Your task to perform on an android device: Add razer naga to the cart on newegg Image 0: 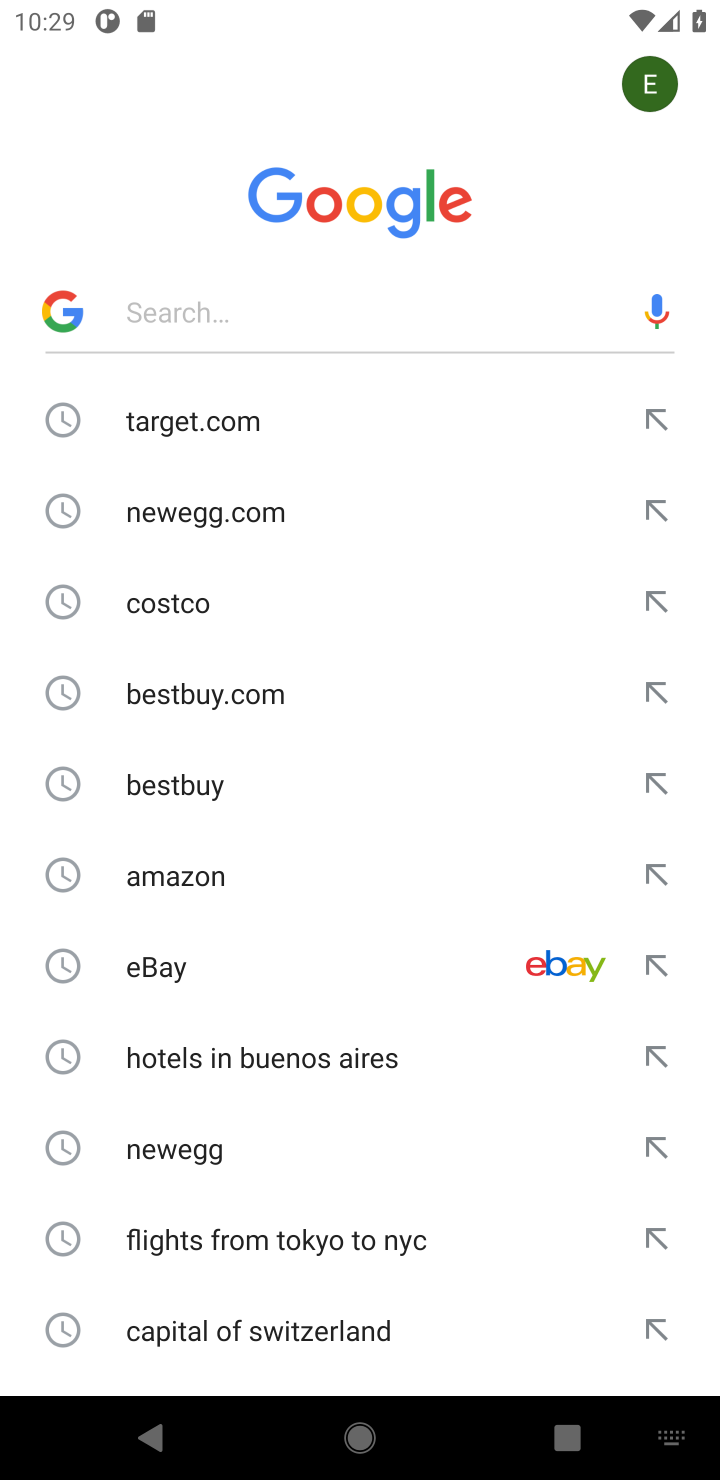
Step 0: press home button
Your task to perform on an android device: Add razer naga to the cart on newegg Image 1: 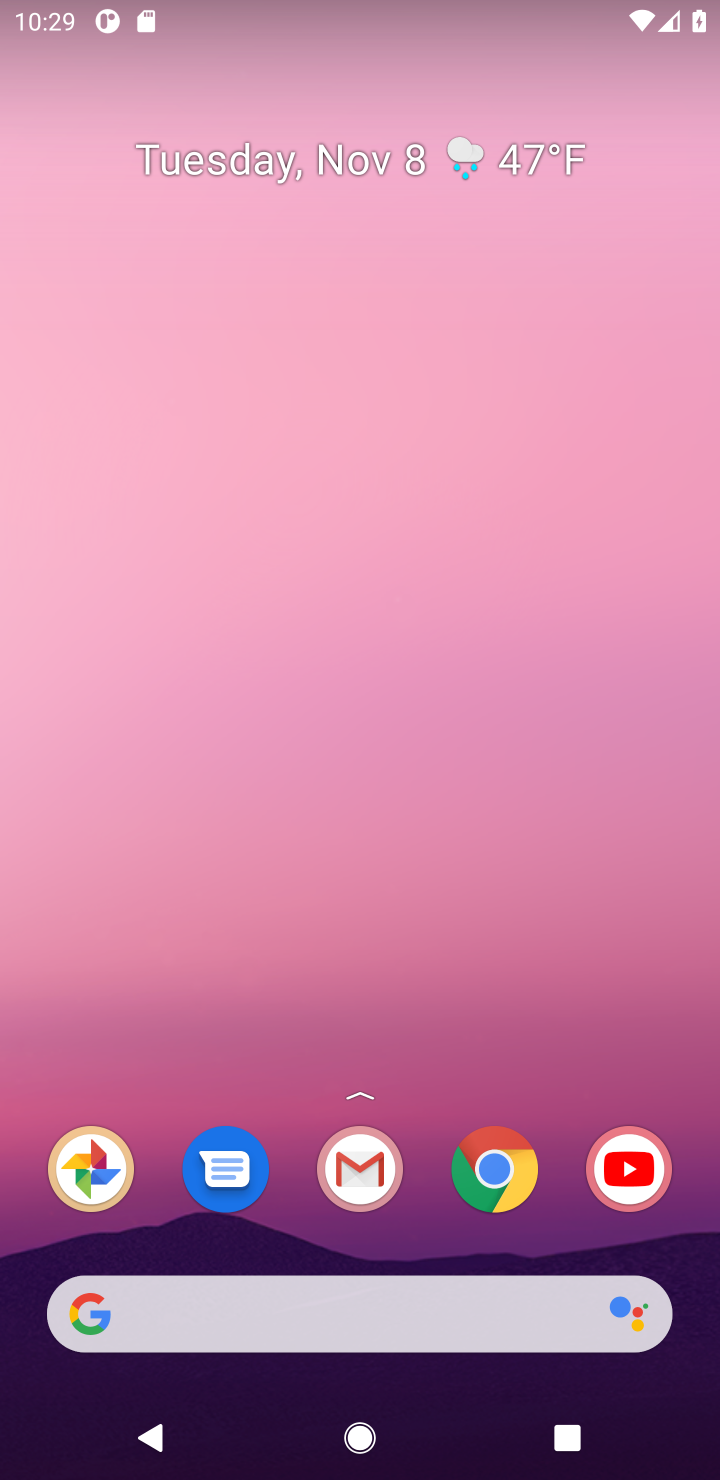
Step 1: click (513, 1178)
Your task to perform on an android device: Add razer naga to the cart on newegg Image 2: 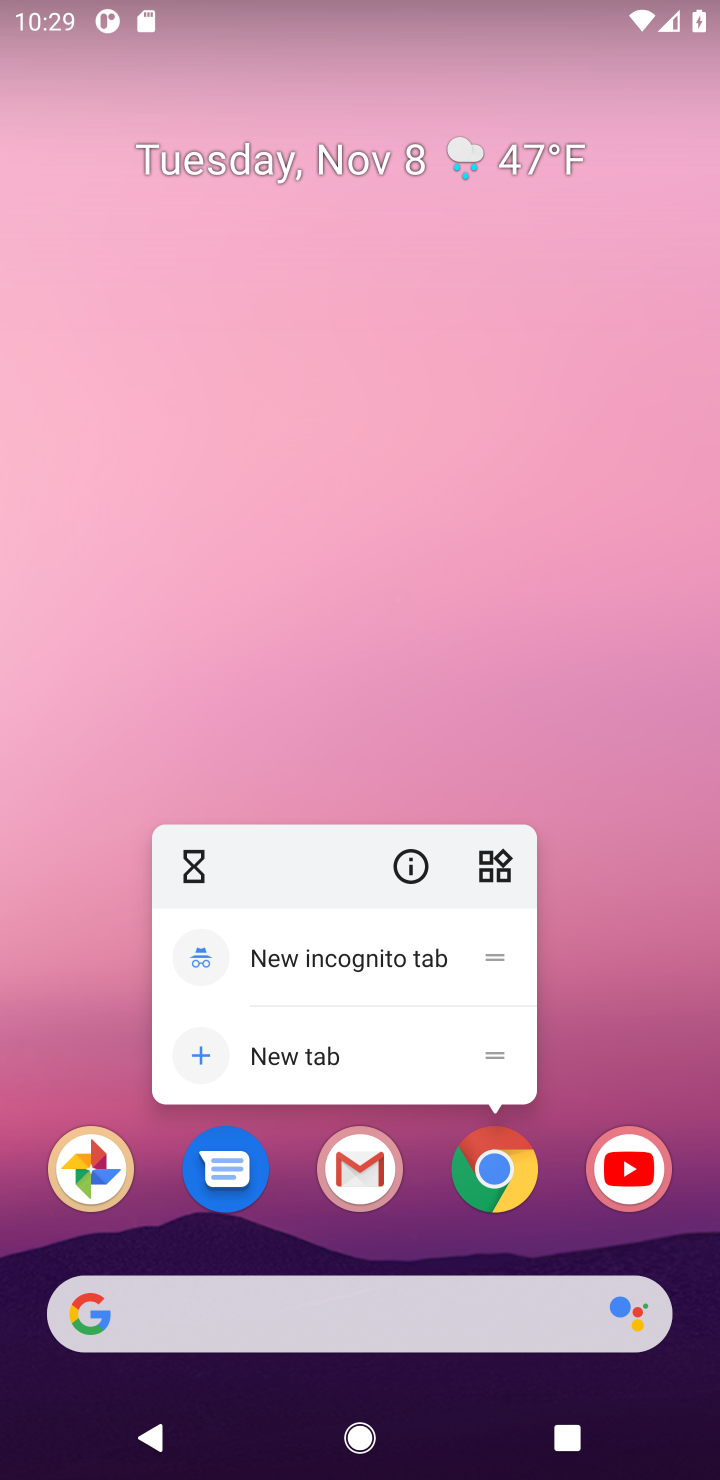
Step 2: click (513, 1178)
Your task to perform on an android device: Add razer naga to the cart on newegg Image 3: 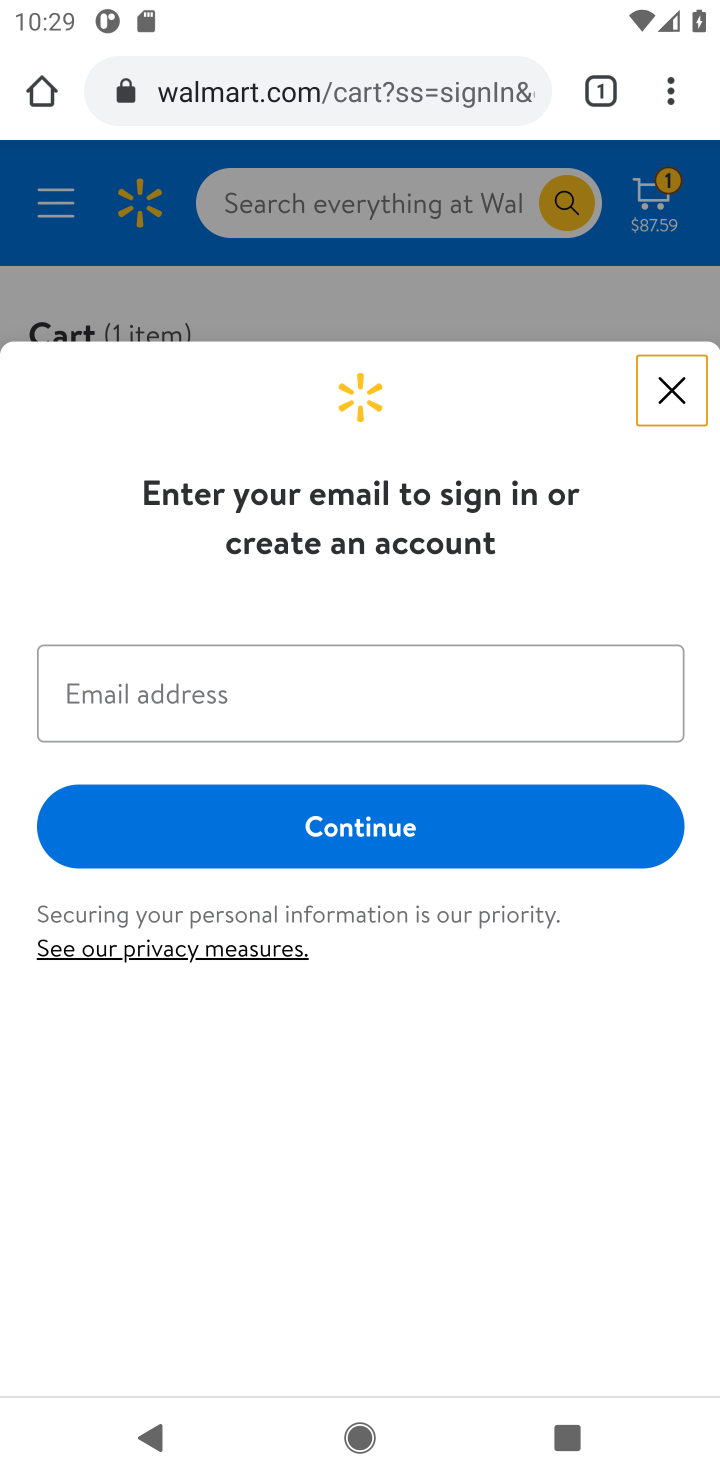
Step 3: click (408, 88)
Your task to perform on an android device: Add razer naga to the cart on newegg Image 4: 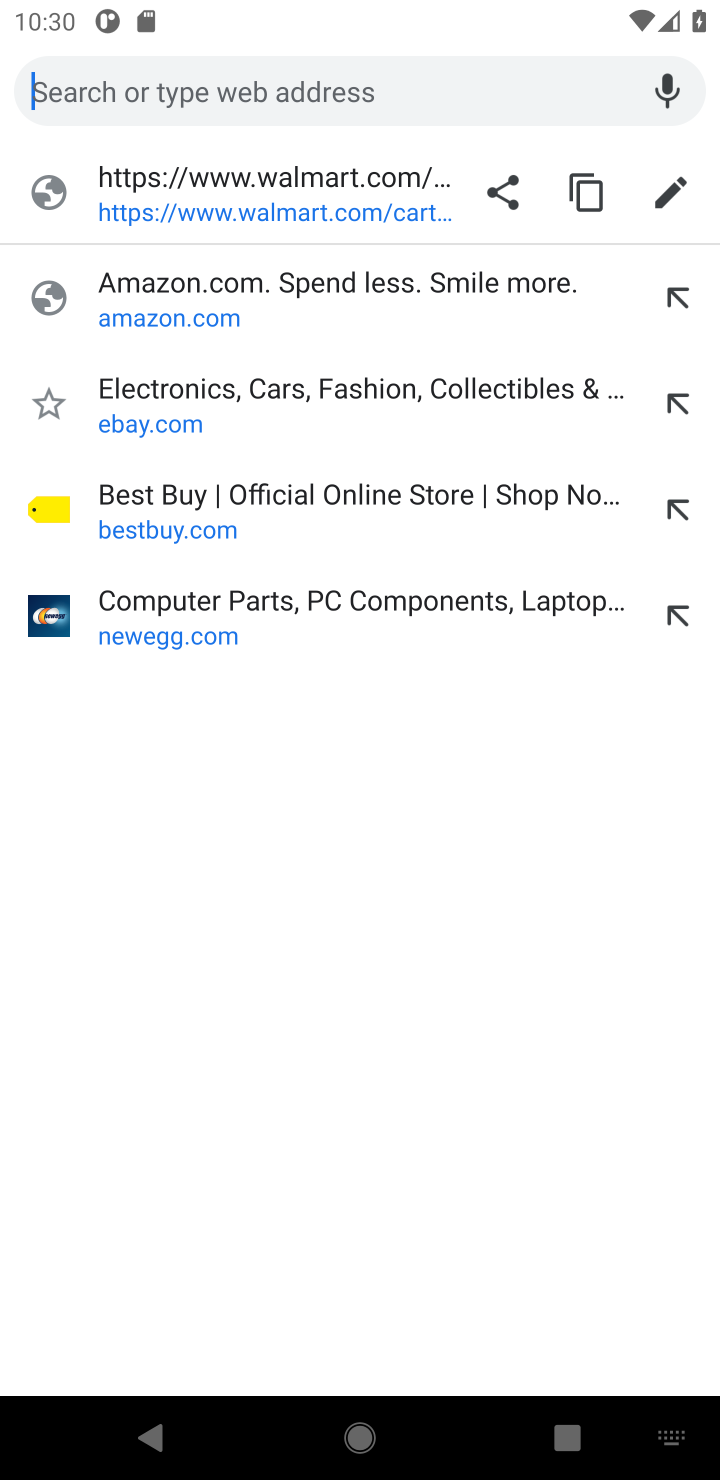
Step 4: type "newegg"
Your task to perform on an android device: Add razer naga to the cart on newegg Image 5: 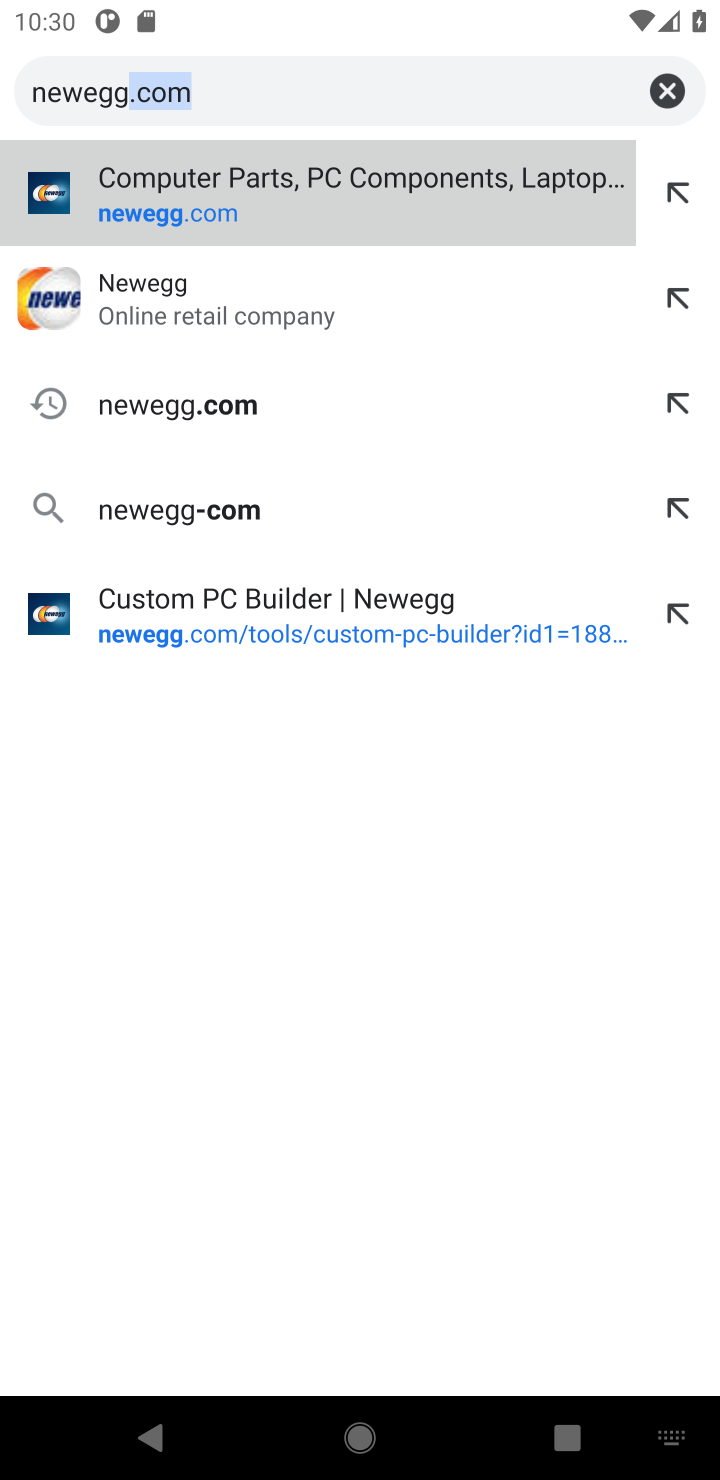
Step 5: click (326, 79)
Your task to perform on an android device: Add razer naga to the cart on newegg Image 6: 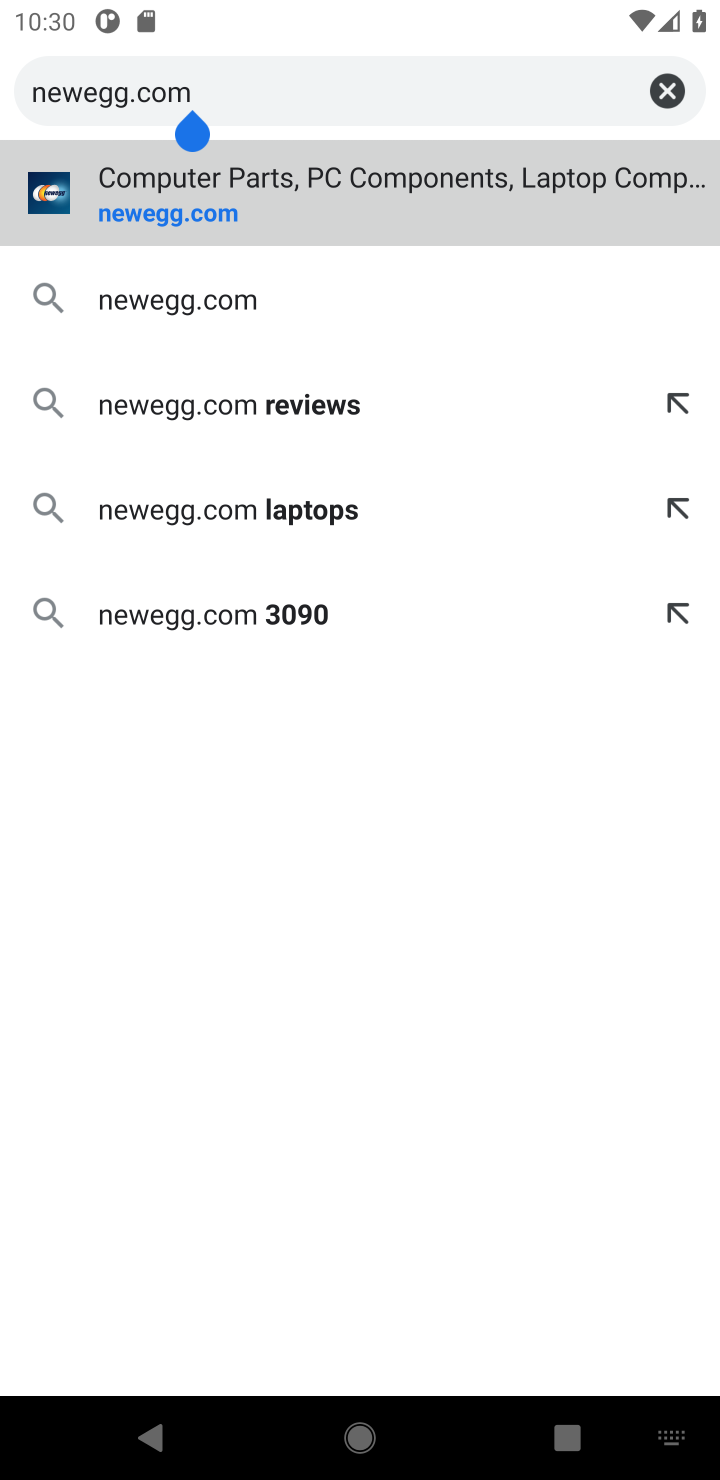
Step 6: click (164, 292)
Your task to perform on an android device: Add razer naga to the cart on newegg Image 7: 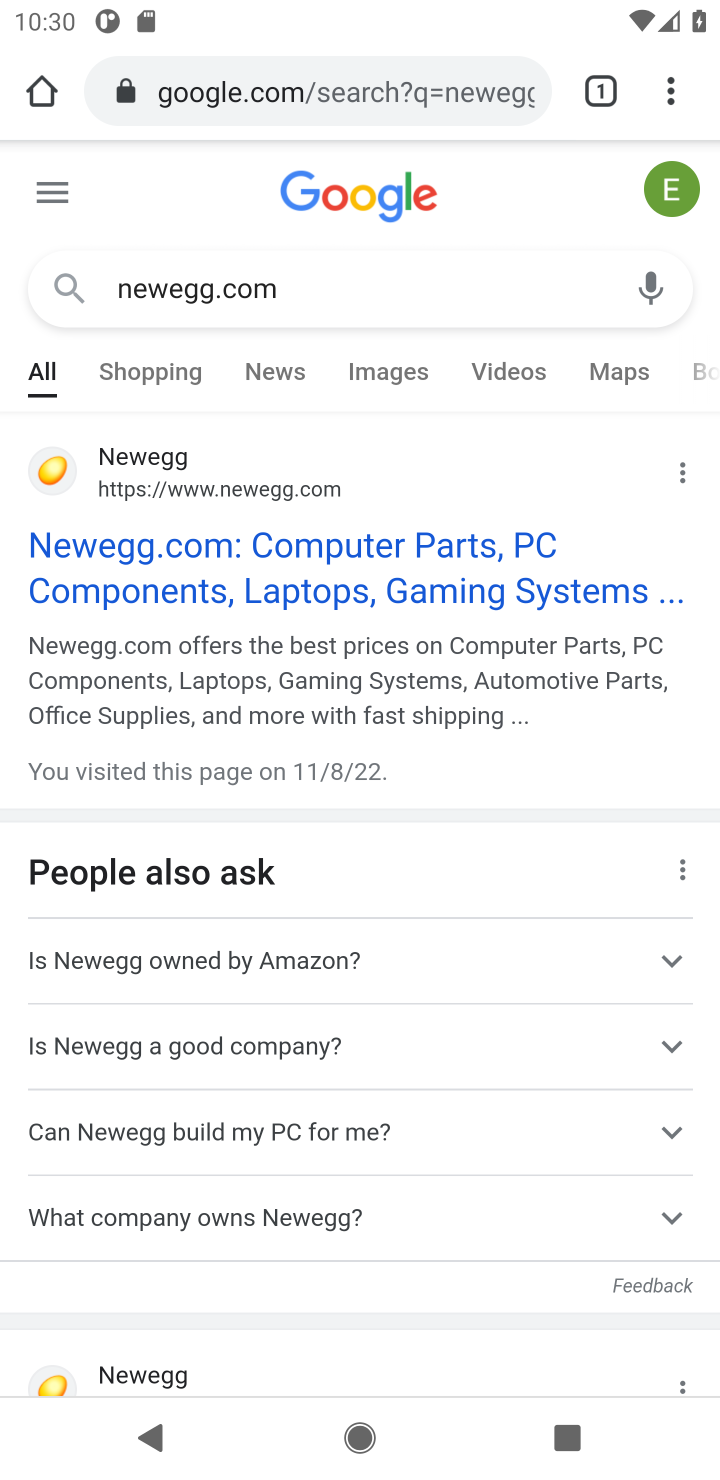
Step 7: drag from (183, 975) to (262, 498)
Your task to perform on an android device: Add razer naga to the cart on newegg Image 8: 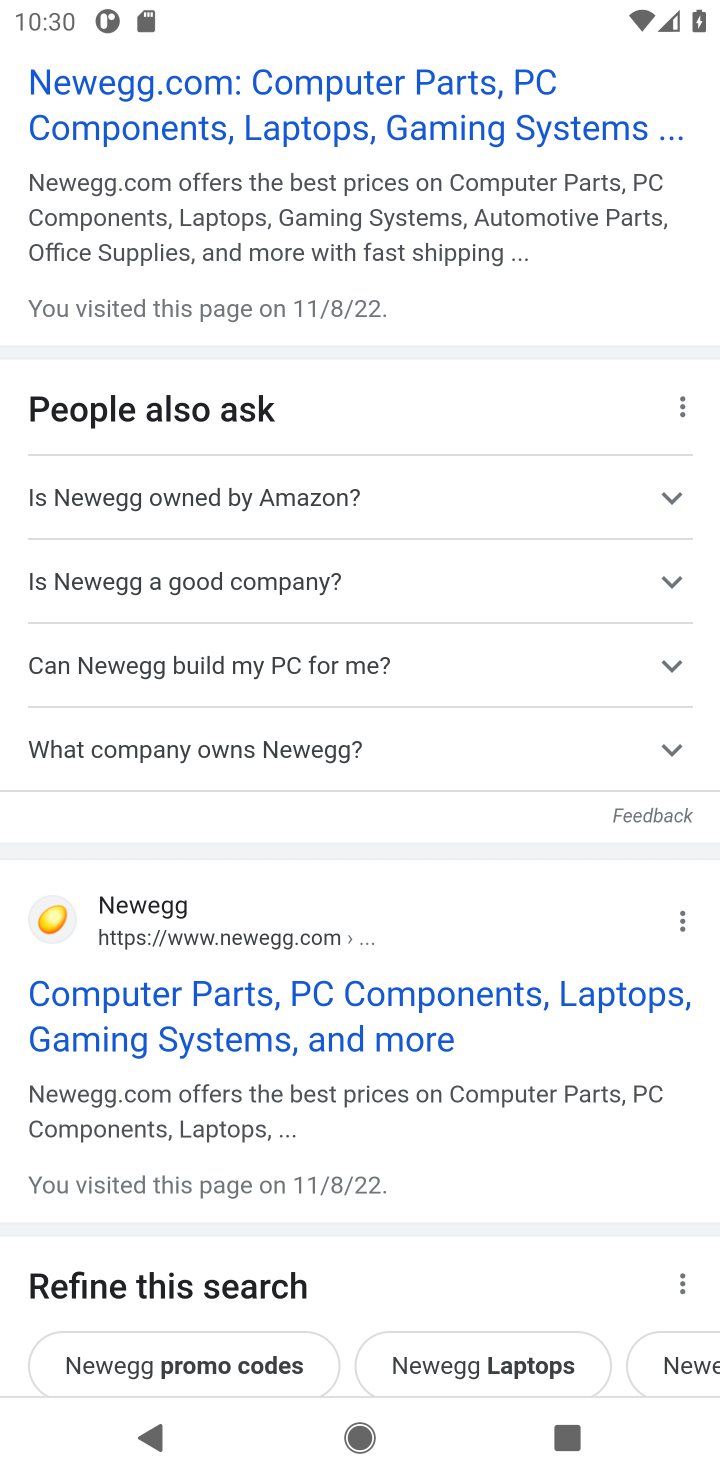
Step 8: click (226, 923)
Your task to perform on an android device: Add razer naga to the cart on newegg Image 9: 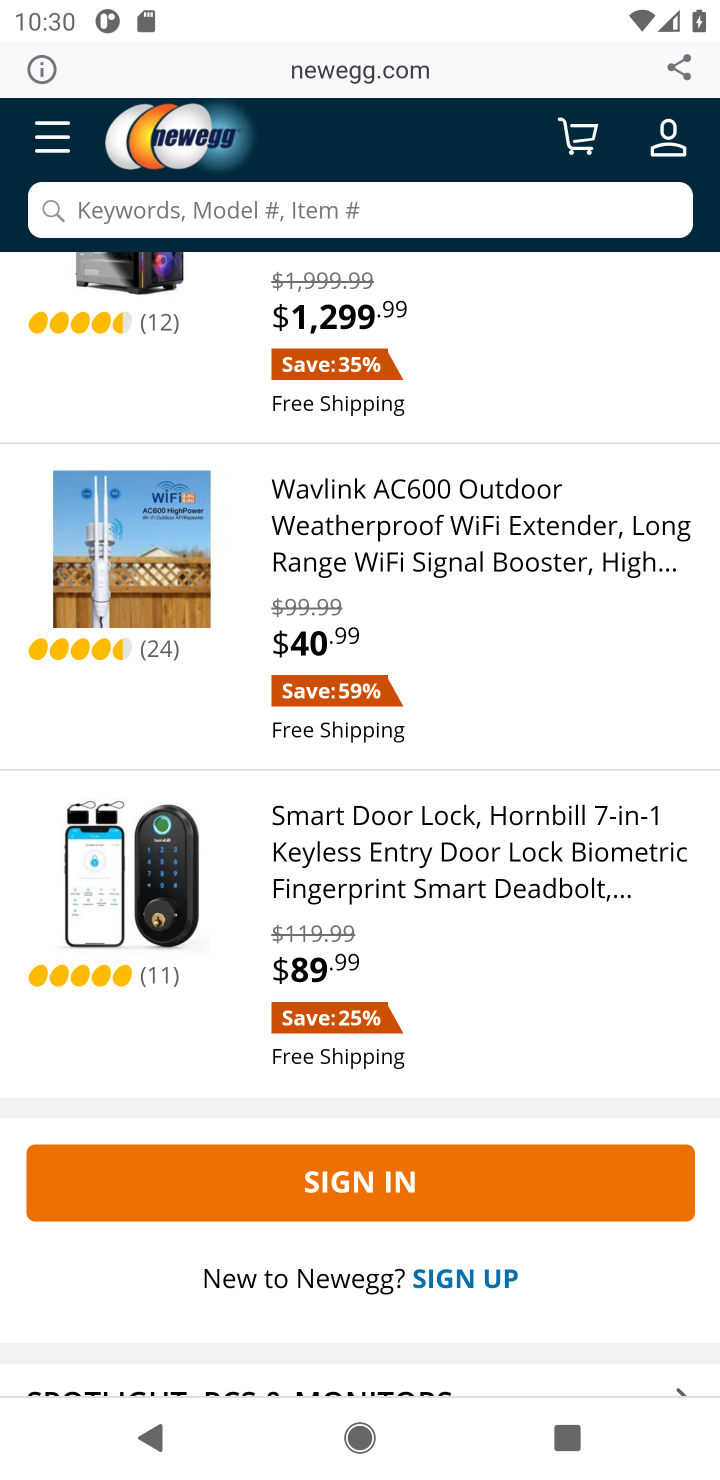
Step 9: drag from (486, 698) to (462, 990)
Your task to perform on an android device: Add razer naga to the cart on newegg Image 10: 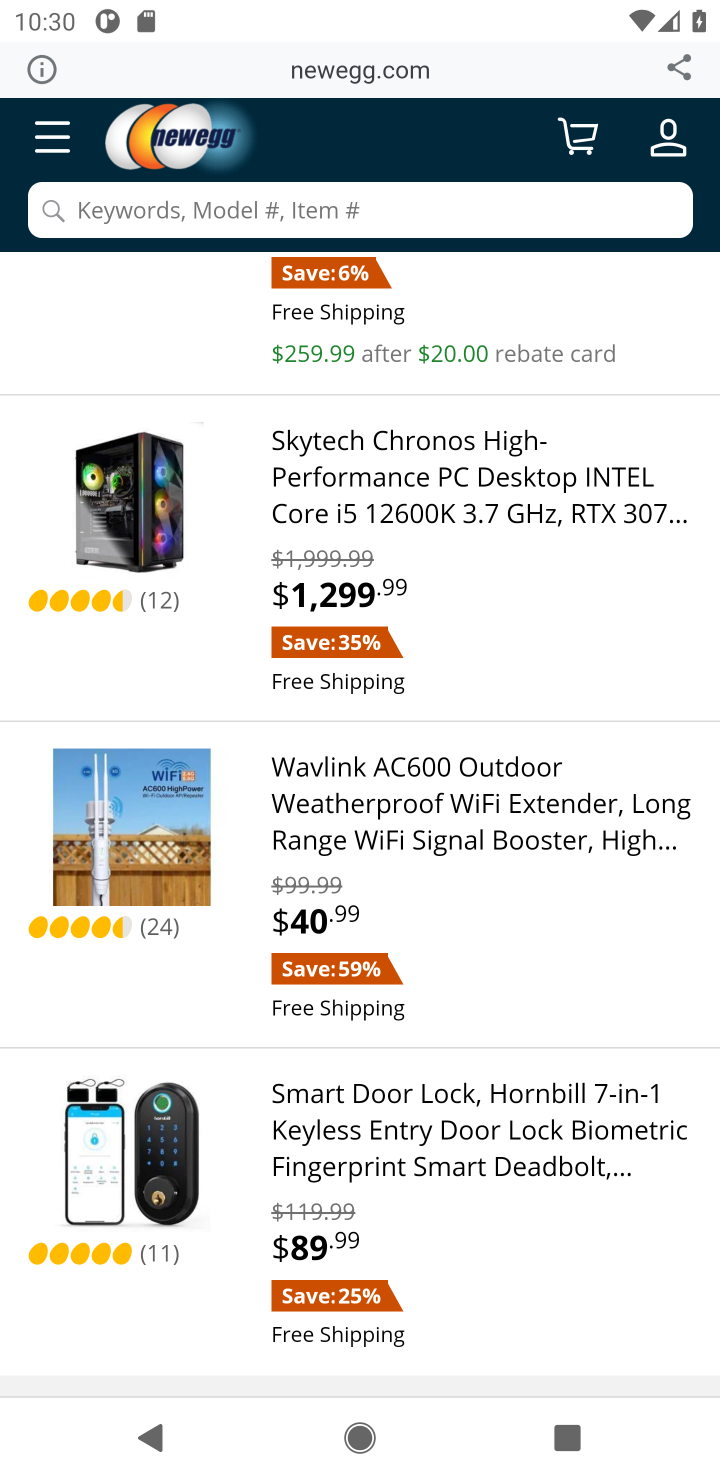
Step 10: click (233, 211)
Your task to perform on an android device: Add razer naga to the cart on newegg Image 11: 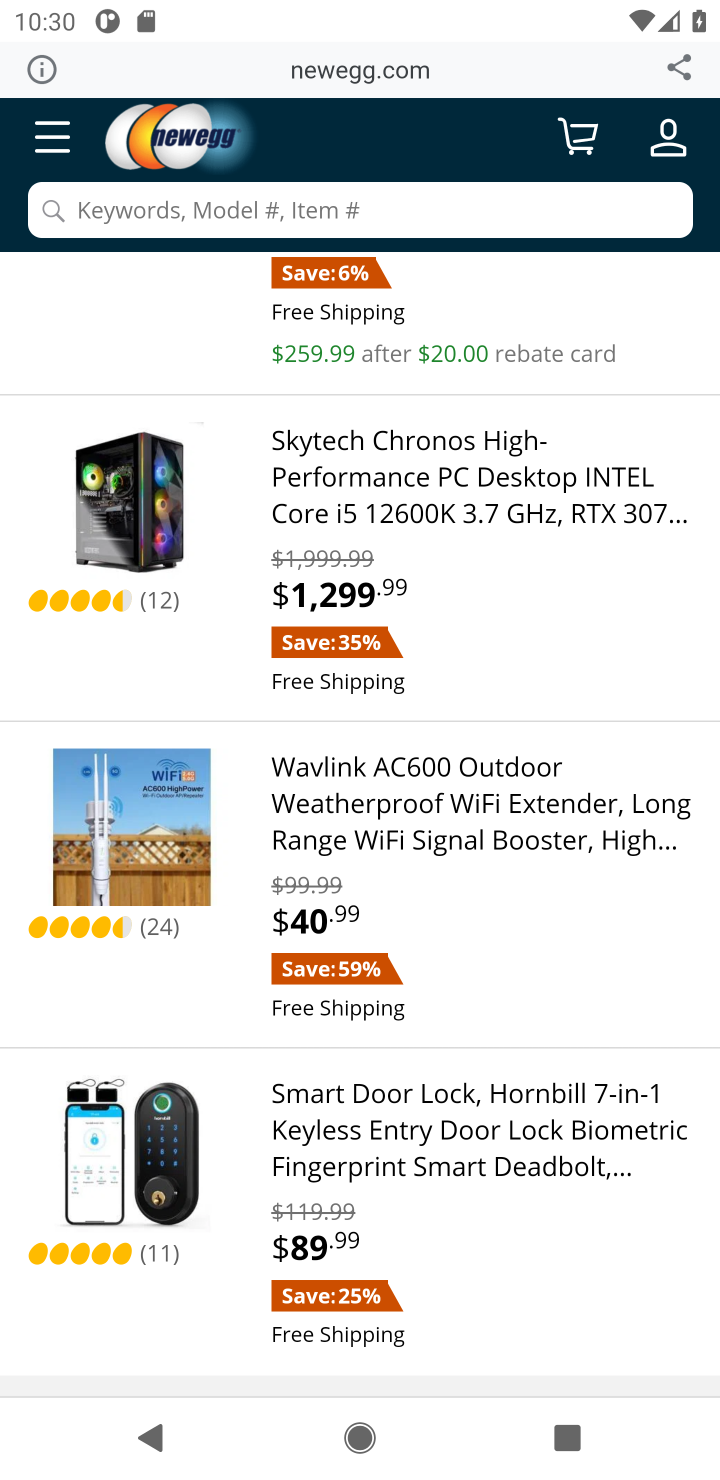
Step 11: type "razer naga "
Your task to perform on an android device: Add razer naga to the cart on newegg Image 12: 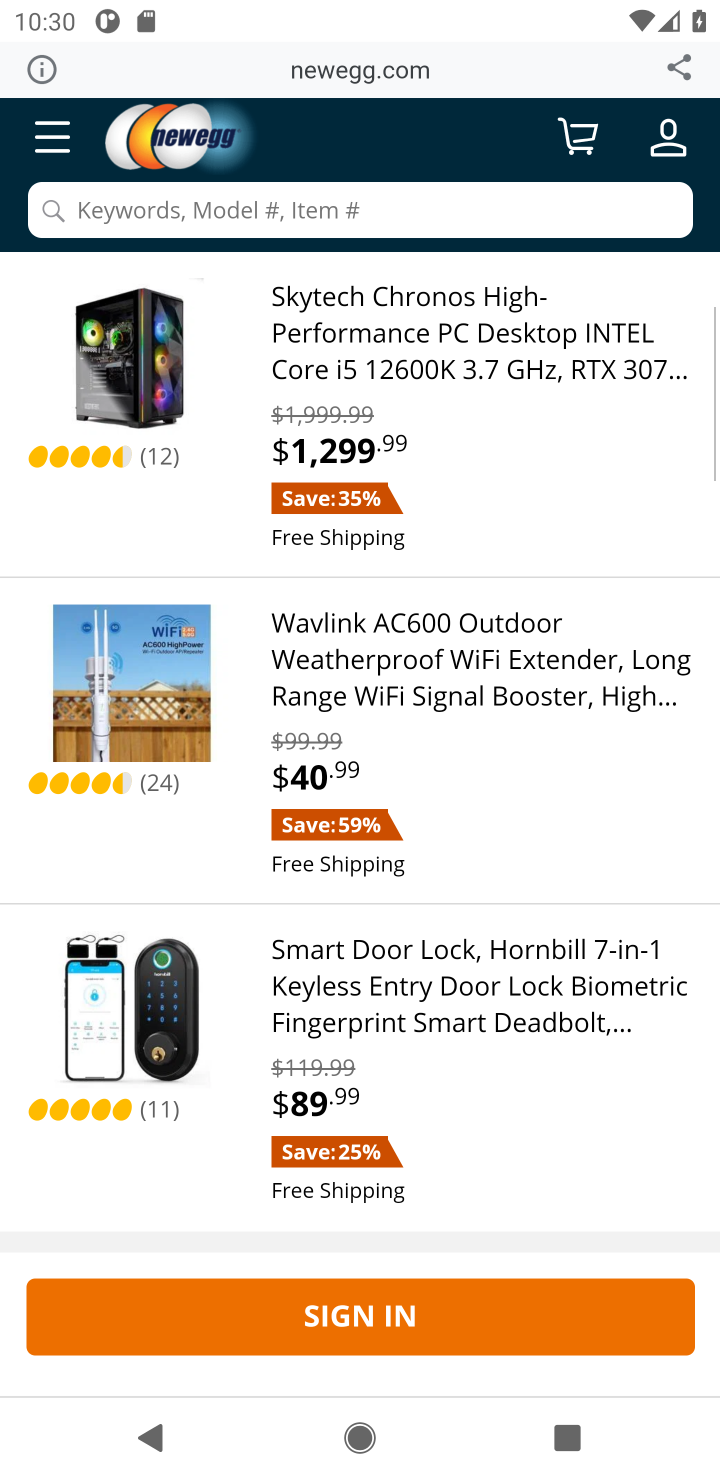
Step 12: press enter
Your task to perform on an android device: Add razer naga to the cart on newegg Image 13: 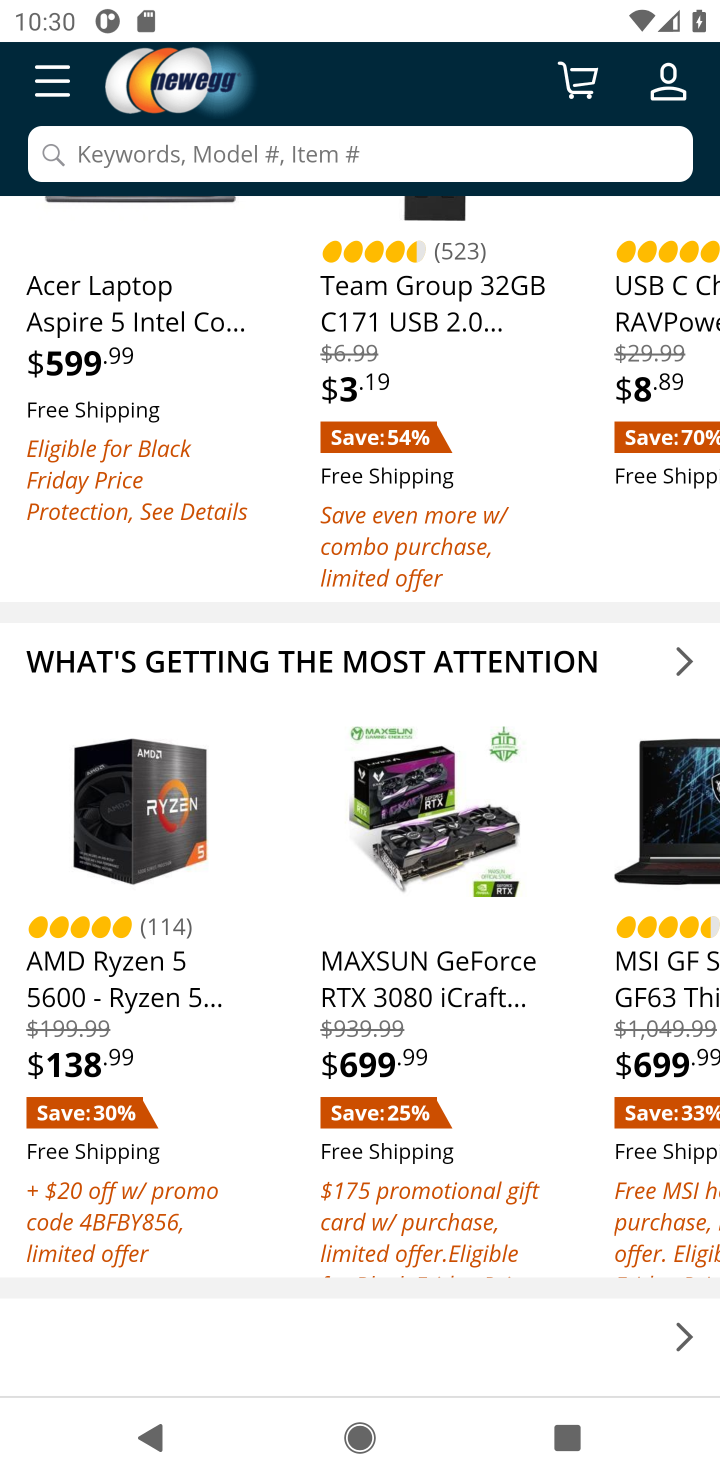
Step 13: click (556, 150)
Your task to perform on an android device: Add razer naga to the cart on newegg Image 14: 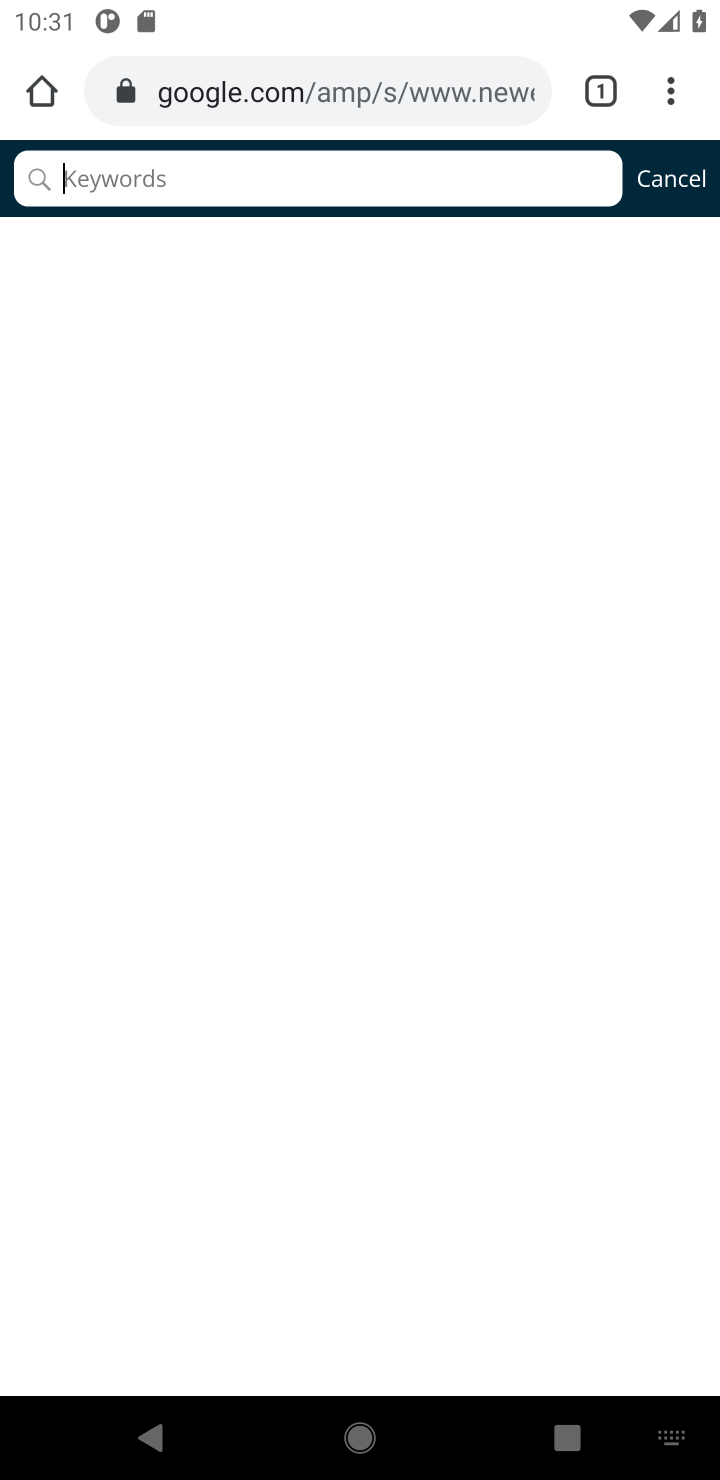
Step 14: type "razer naga "
Your task to perform on an android device: Add razer naga to the cart on newegg Image 15: 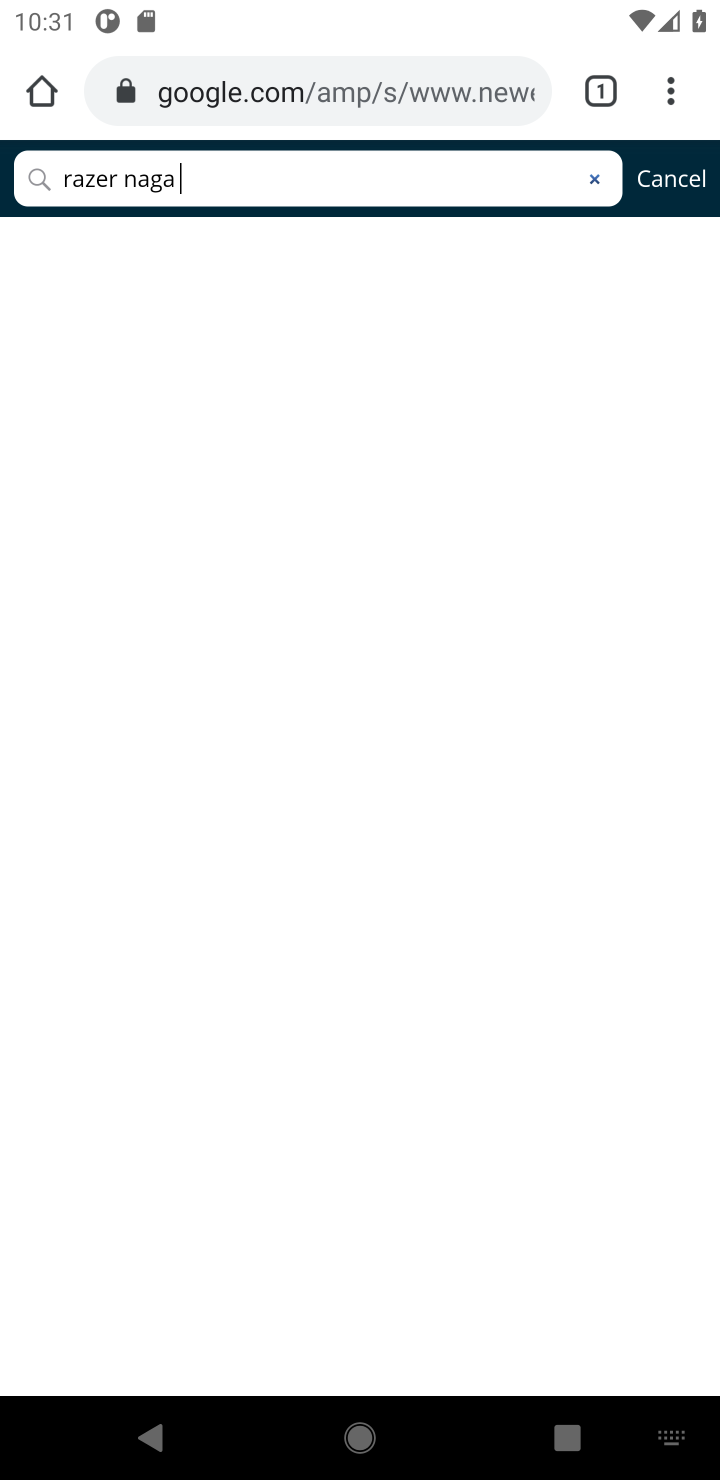
Step 15: press enter
Your task to perform on an android device: Add razer naga to the cart on newegg Image 16: 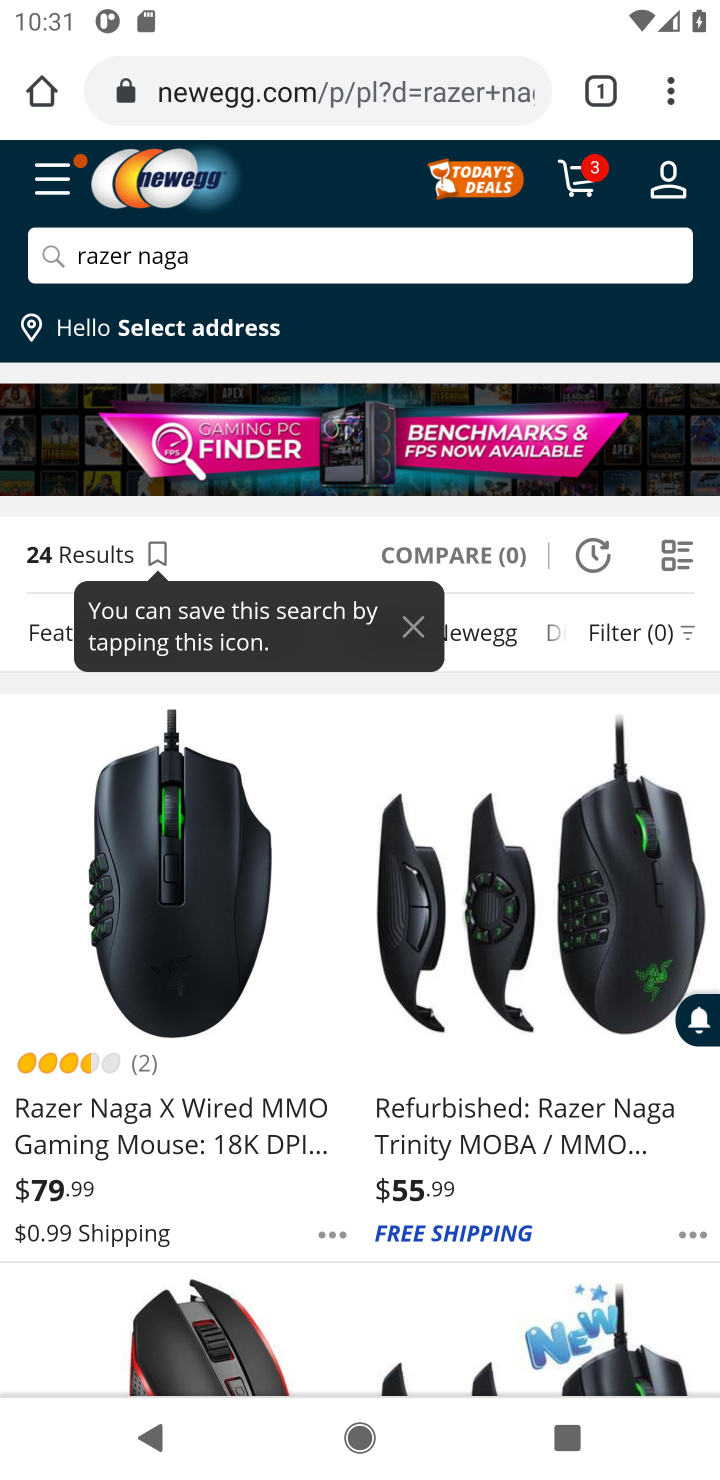
Step 16: click (224, 901)
Your task to perform on an android device: Add razer naga to the cart on newegg Image 17: 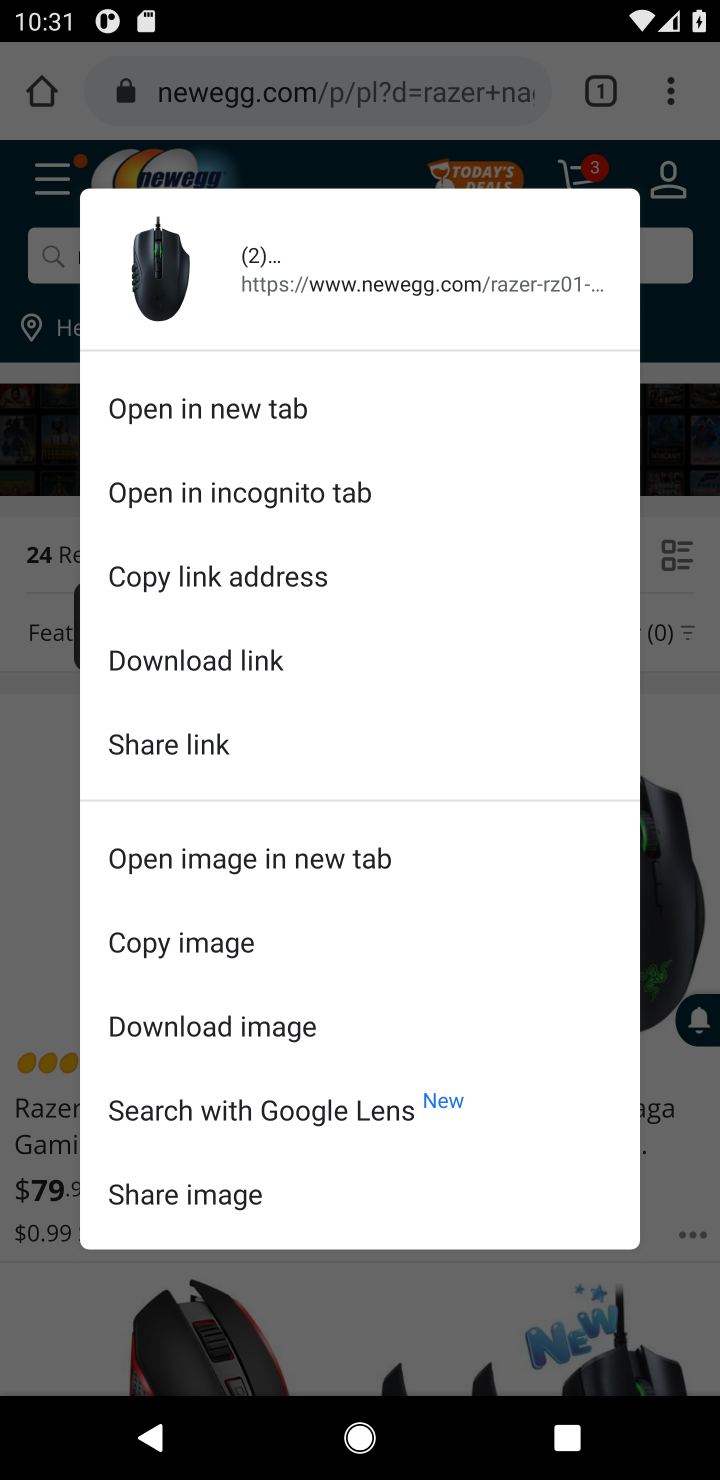
Step 17: click (49, 898)
Your task to perform on an android device: Add razer naga to the cart on newegg Image 18: 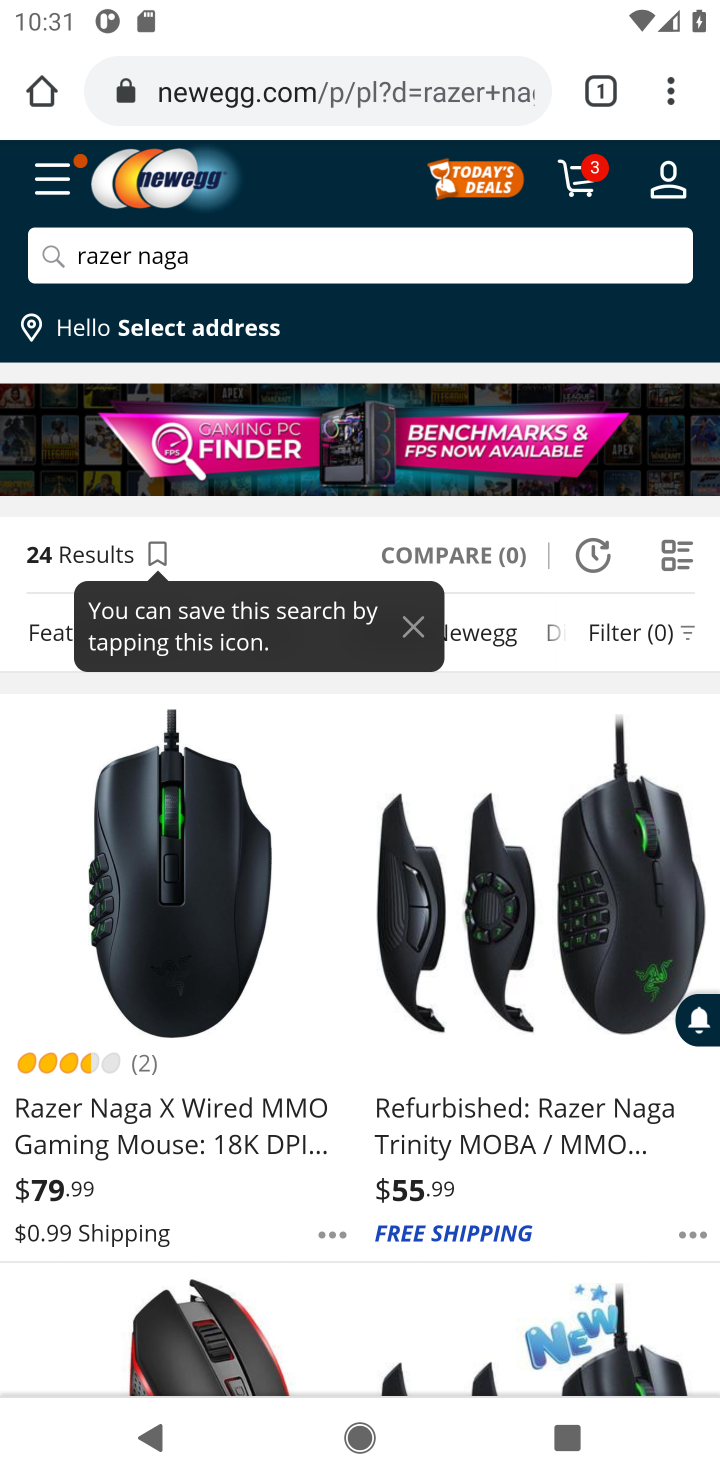
Step 18: click (143, 863)
Your task to perform on an android device: Add razer naga to the cart on newegg Image 19: 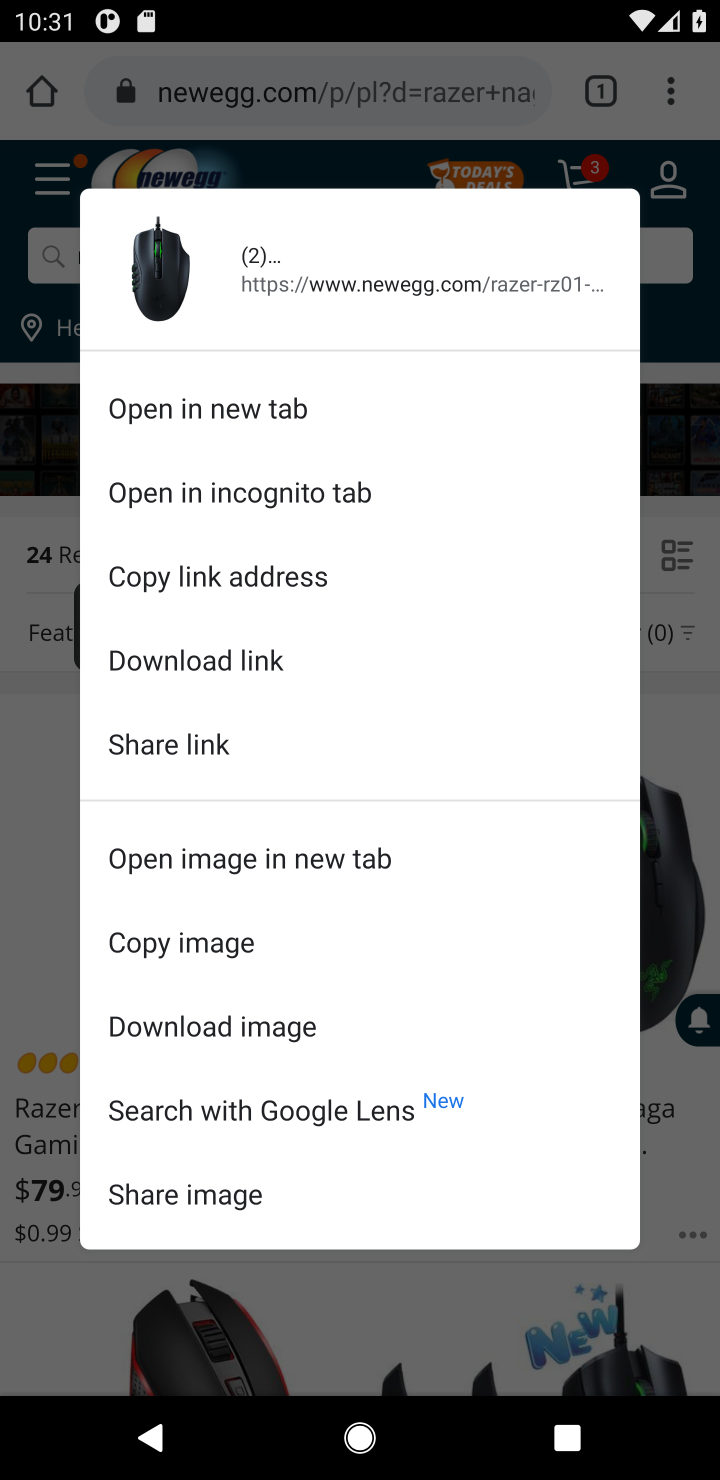
Step 19: click (43, 897)
Your task to perform on an android device: Add razer naga to the cart on newegg Image 20: 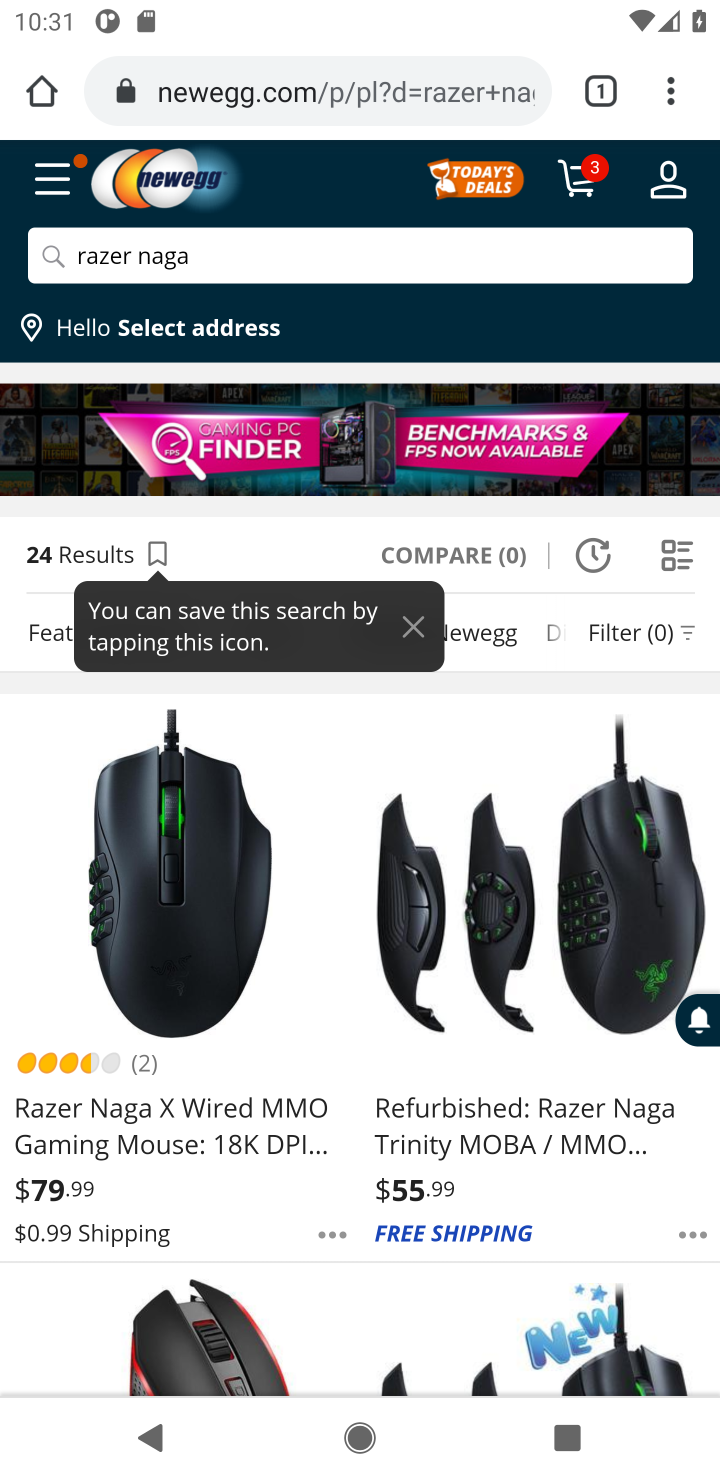
Step 20: click (157, 857)
Your task to perform on an android device: Add razer naga to the cart on newegg Image 21: 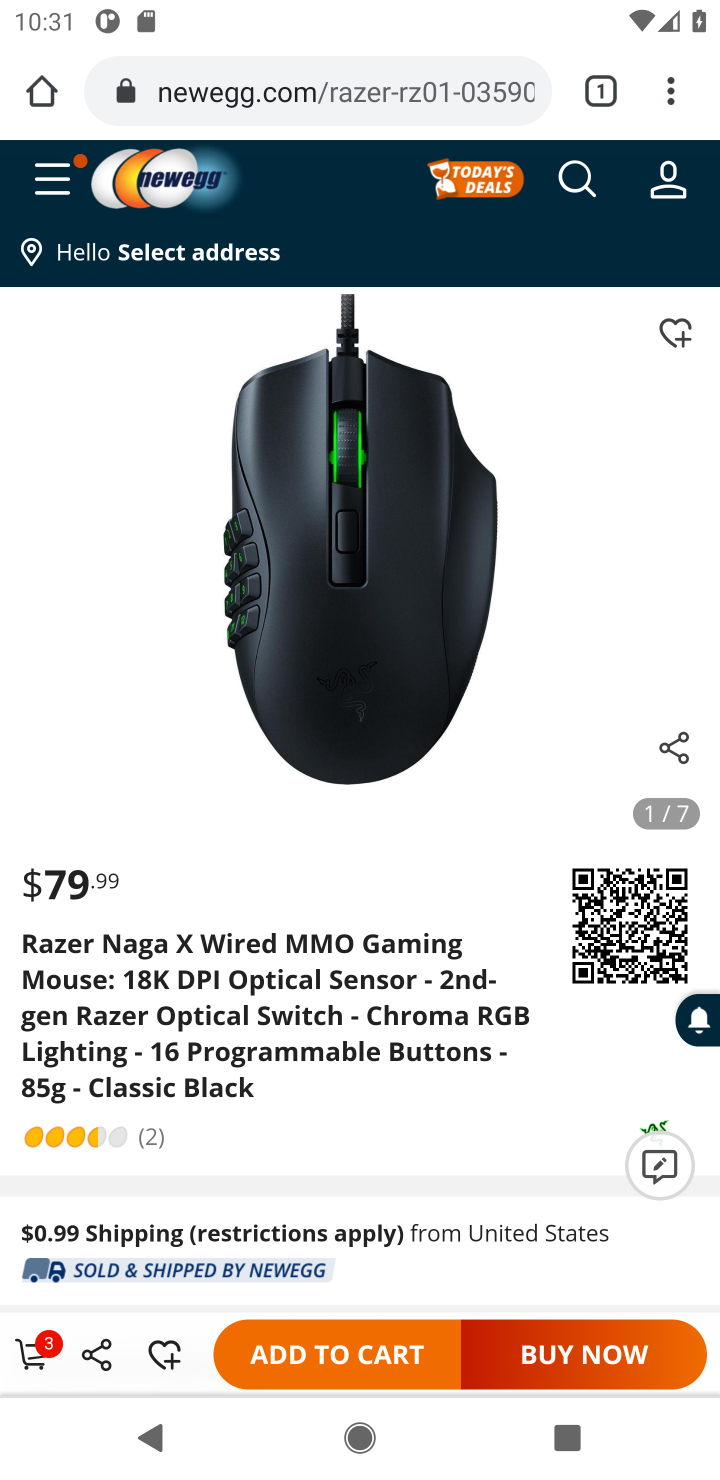
Step 21: click (332, 1349)
Your task to perform on an android device: Add razer naga to the cart on newegg Image 22: 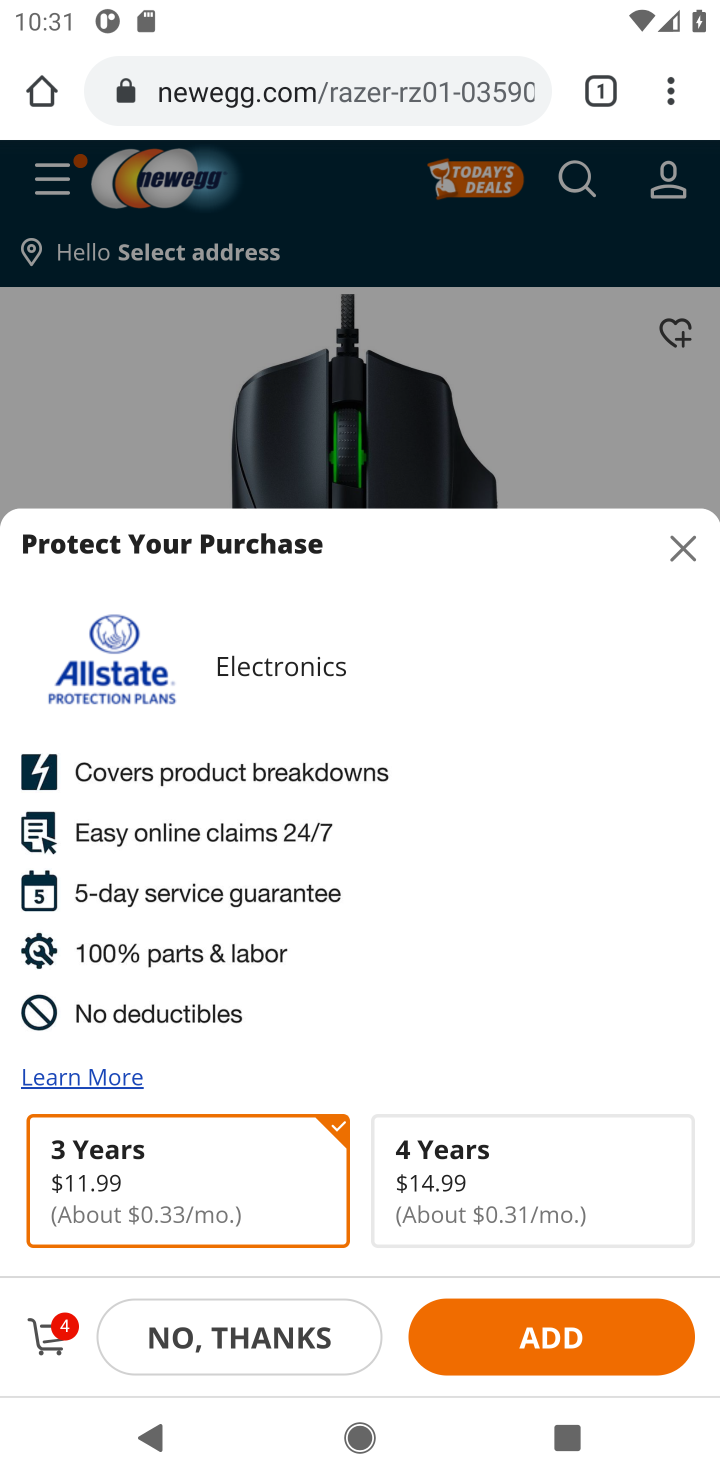
Step 22: task complete